Your task to perform on an android device: Open the calendar and show me this week's events Image 0: 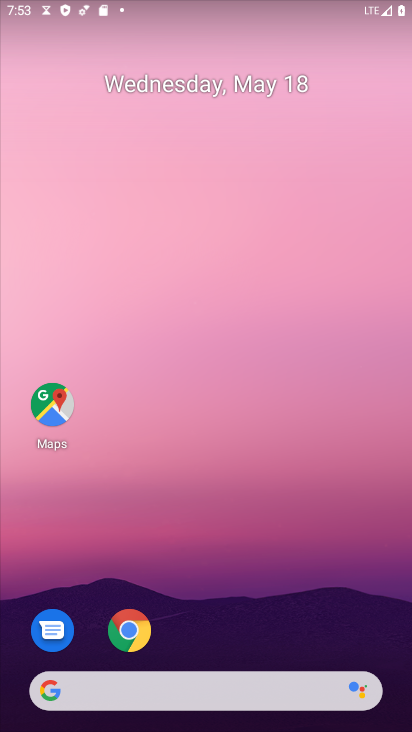
Step 0: drag from (285, 561) to (290, 82)
Your task to perform on an android device: Open the calendar and show me this week's events Image 1: 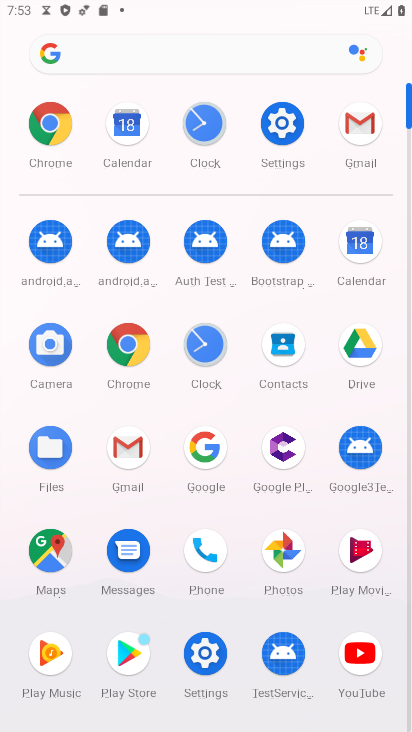
Step 1: click (378, 245)
Your task to perform on an android device: Open the calendar and show me this week's events Image 2: 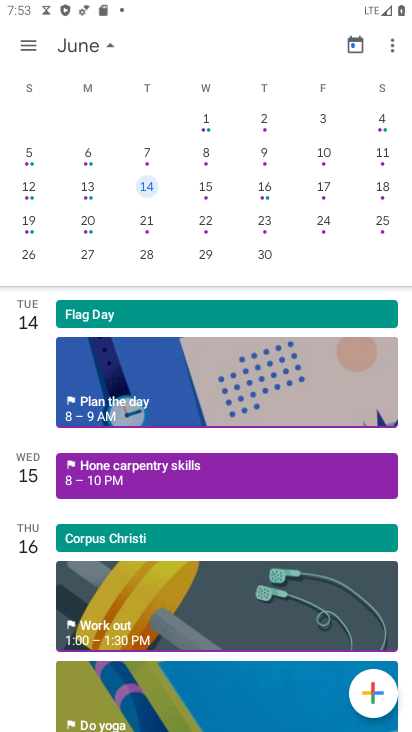
Step 2: task complete